Your task to perform on an android device: add a contact Image 0: 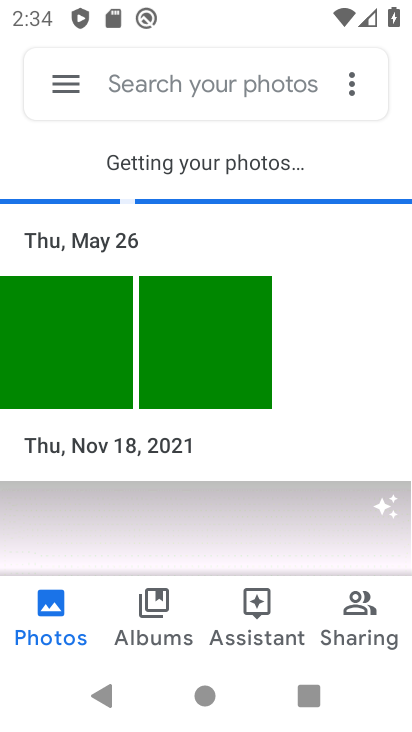
Step 0: press home button
Your task to perform on an android device: add a contact Image 1: 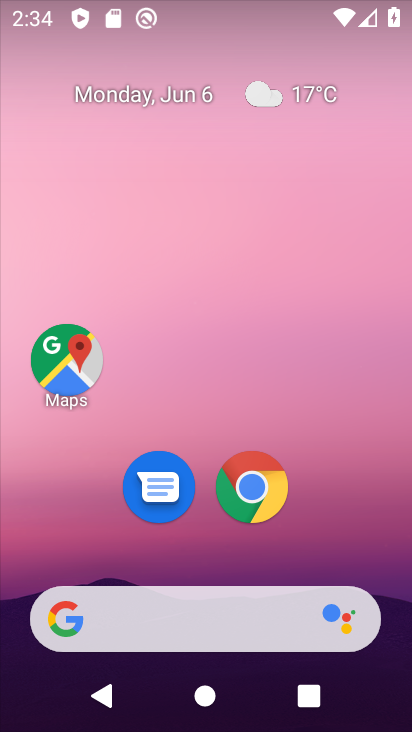
Step 1: drag from (57, 553) to (214, 141)
Your task to perform on an android device: add a contact Image 2: 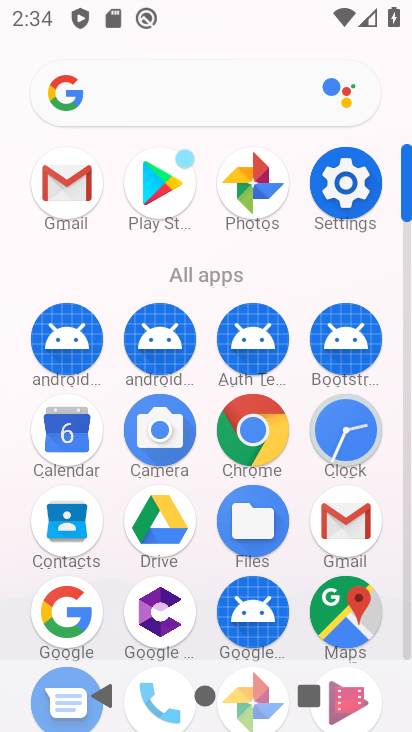
Step 2: drag from (231, 597) to (345, 276)
Your task to perform on an android device: add a contact Image 3: 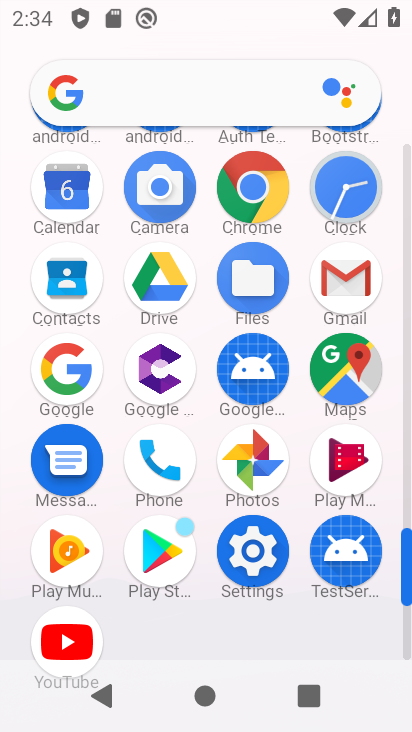
Step 3: click (79, 287)
Your task to perform on an android device: add a contact Image 4: 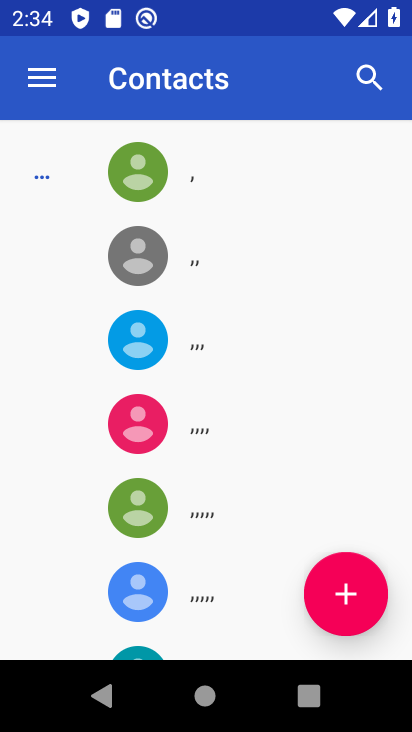
Step 4: click (348, 601)
Your task to perform on an android device: add a contact Image 5: 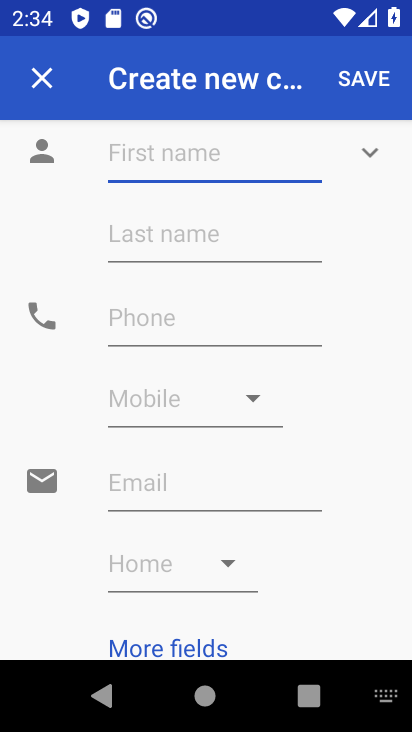
Step 5: type "mikiii"
Your task to perform on an android device: add a contact Image 6: 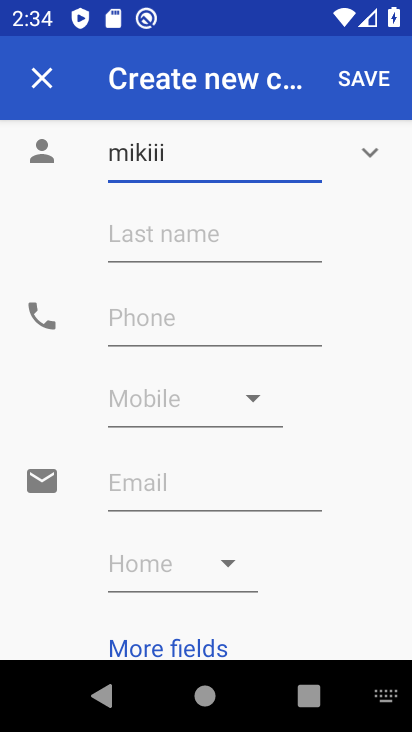
Step 6: click (157, 324)
Your task to perform on an android device: add a contact Image 7: 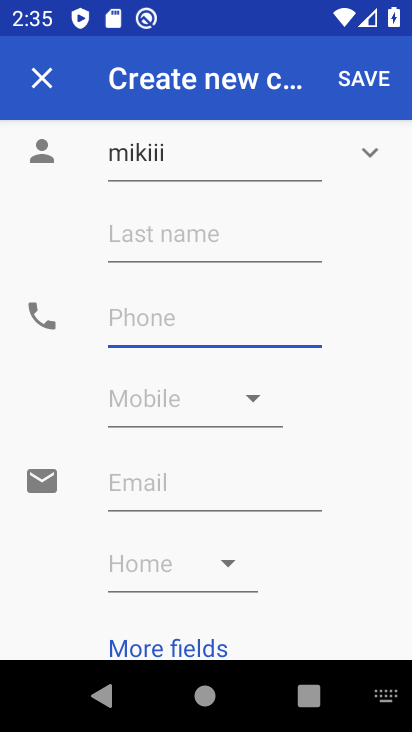
Step 7: type "4774554221"
Your task to perform on an android device: add a contact Image 8: 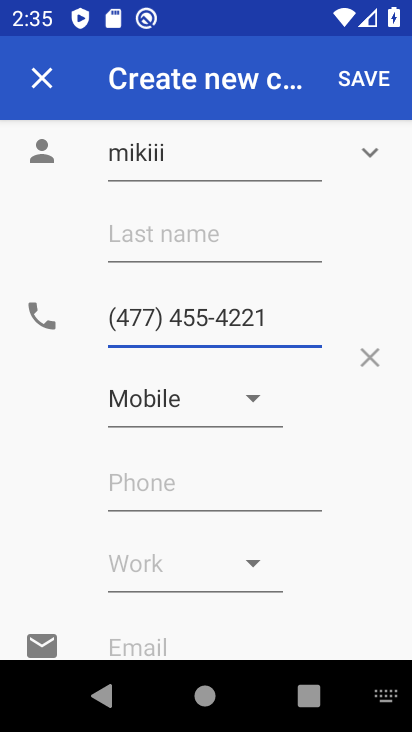
Step 8: click (359, 91)
Your task to perform on an android device: add a contact Image 9: 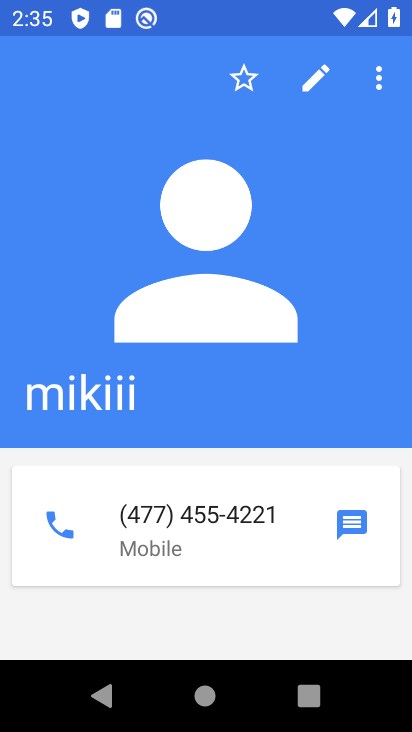
Step 9: task complete